Your task to perform on an android device: Open Google Maps and go to "Timeline" Image 0: 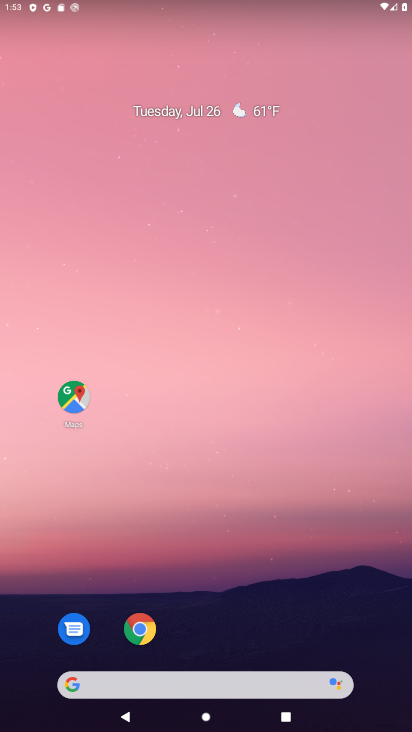
Step 0: click (384, 522)
Your task to perform on an android device: Open Google Maps and go to "Timeline" Image 1: 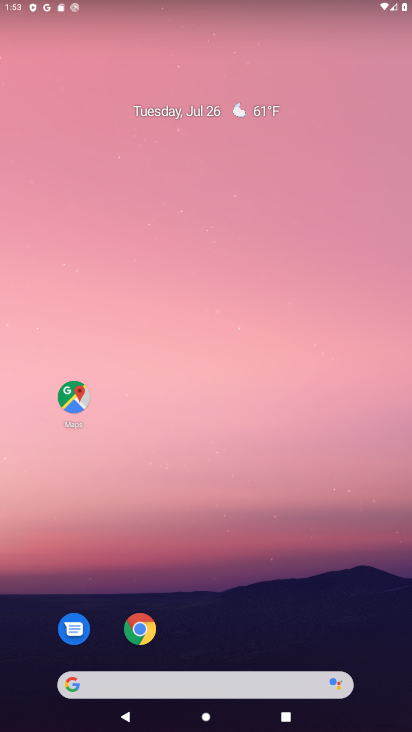
Step 1: drag from (273, 594) to (153, 156)
Your task to perform on an android device: Open Google Maps and go to "Timeline" Image 2: 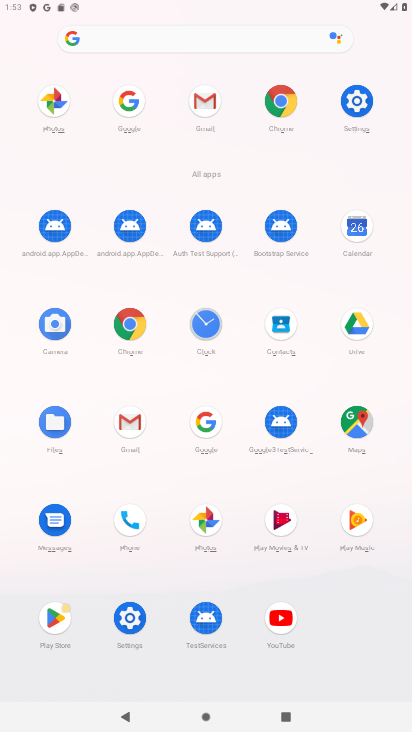
Step 2: click (352, 426)
Your task to perform on an android device: Open Google Maps and go to "Timeline" Image 3: 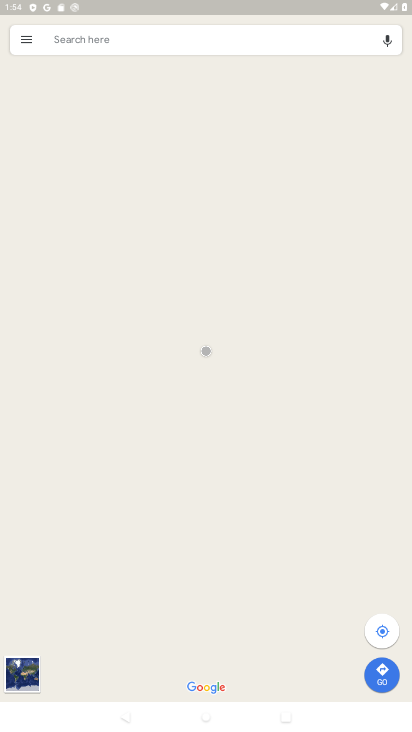
Step 3: click (23, 42)
Your task to perform on an android device: Open Google Maps and go to "Timeline" Image 4: 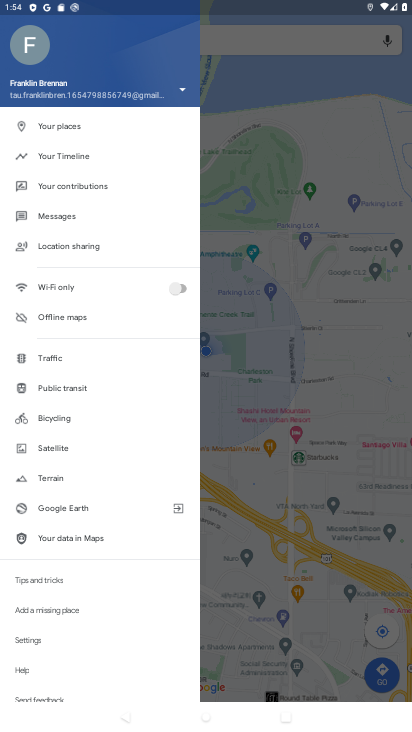
Step 4: click (56, 147)
Your task to perform on an android device: Open Google Maps and go to "Timeline" Image 5: 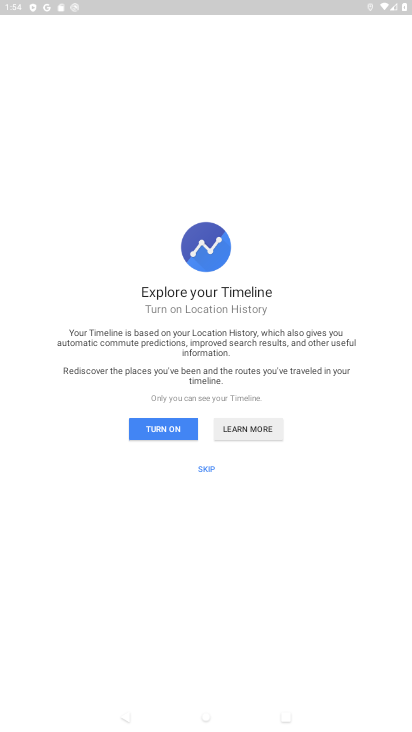
Step 5: click (182, 437)
Your task to perform on an android device: Open Google Maps and go to "Timeline" Image 6: 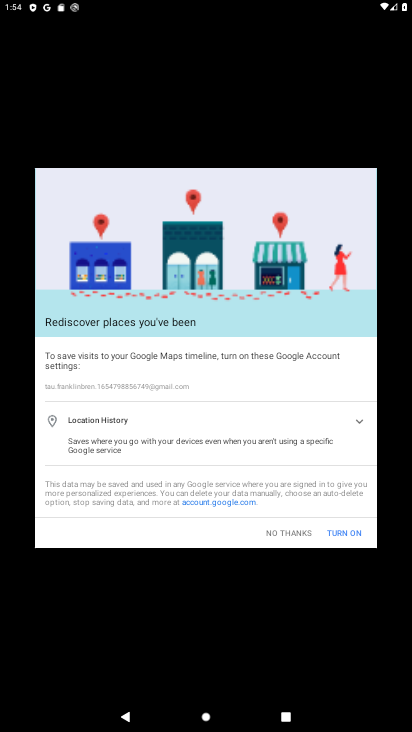
Step 6: task complete